Your task to perform on an android device: Search for bose soundlink mini on target, select the first entry, and add it to the cart. Image 0: 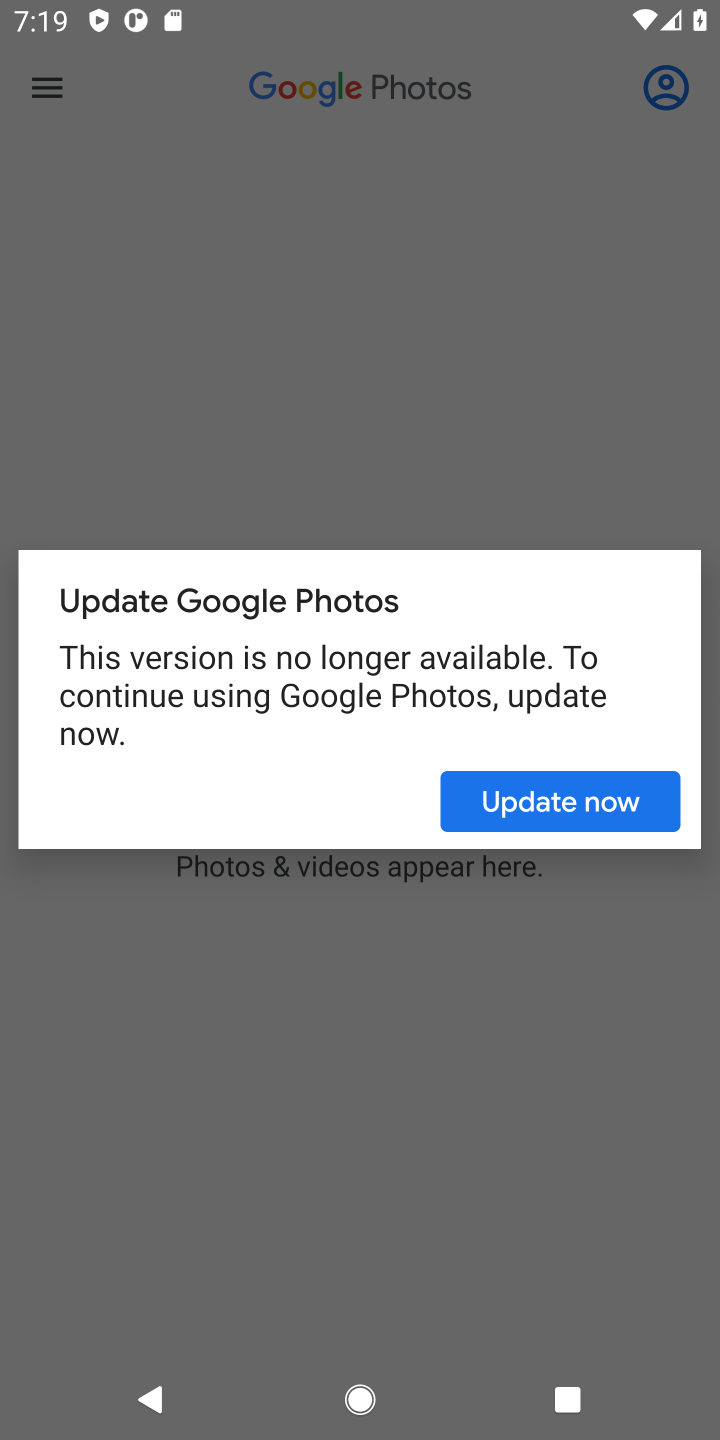
Step 0: press home button
Your task to perform on an android device: Search for bose soundlink mini on target, select the first entry, and add it to the cart. Image 1: 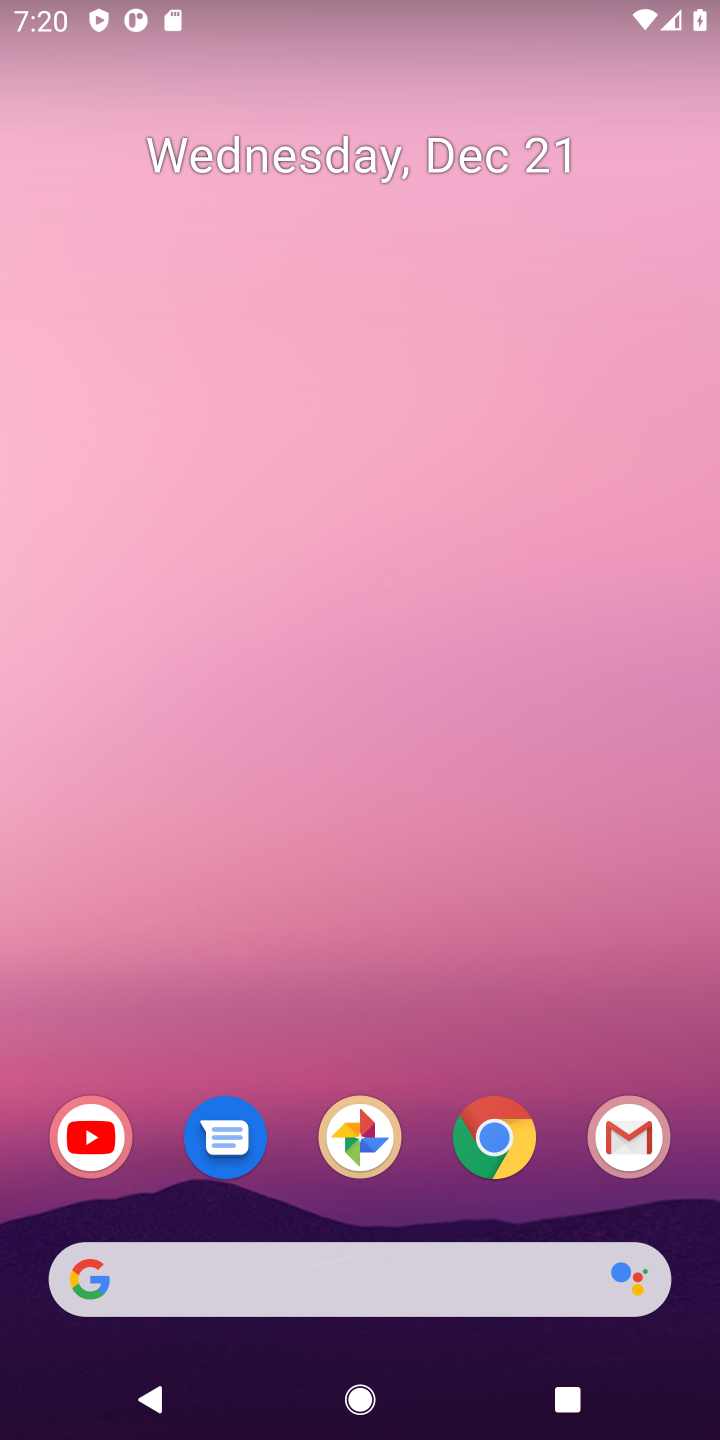
Step 1: click (482, 1151)
Your task to perform on an android device: Search for bose soundlink mini on target, select the first entry, and add it to the cart. Image 2: 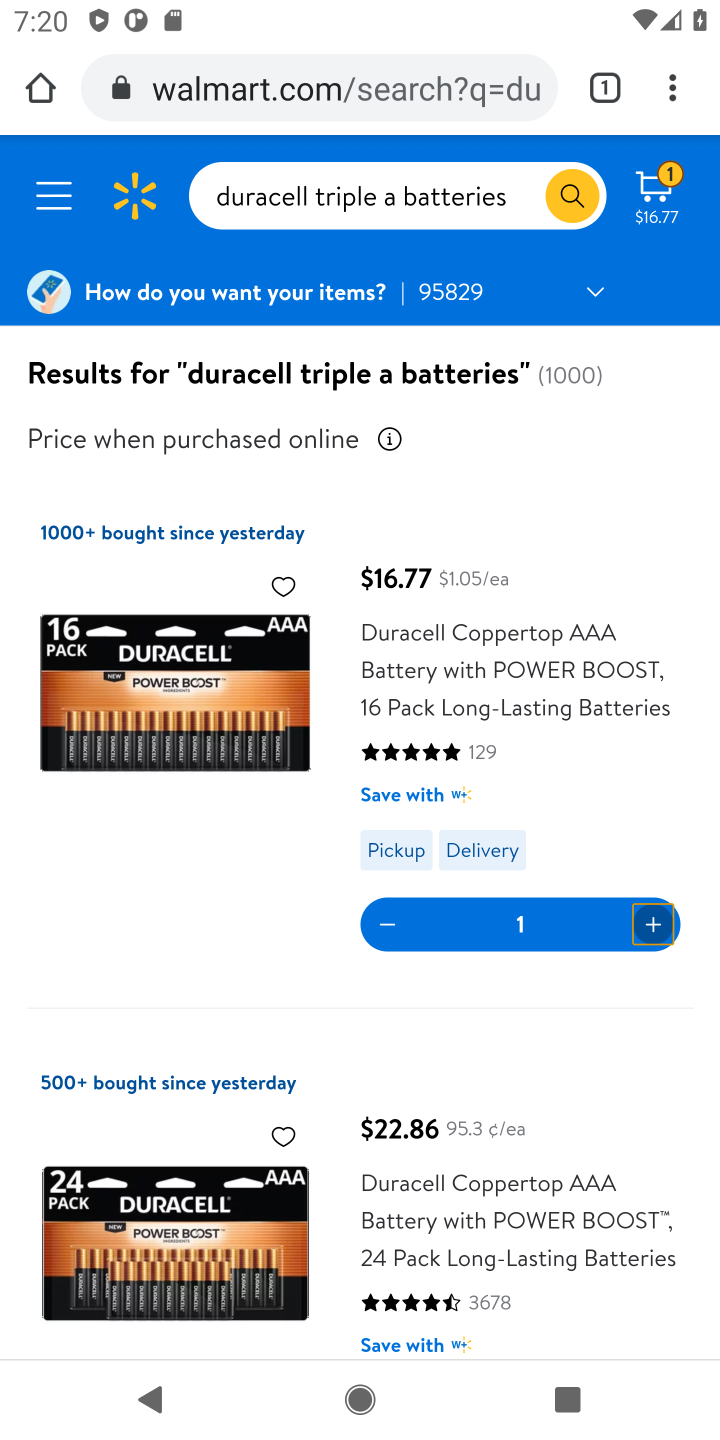
Step 2: click (257, 98)
Your task to perform on an android device: Search for bose soundlink mini on target, select the first entry, and add it to the cart. Image 3: 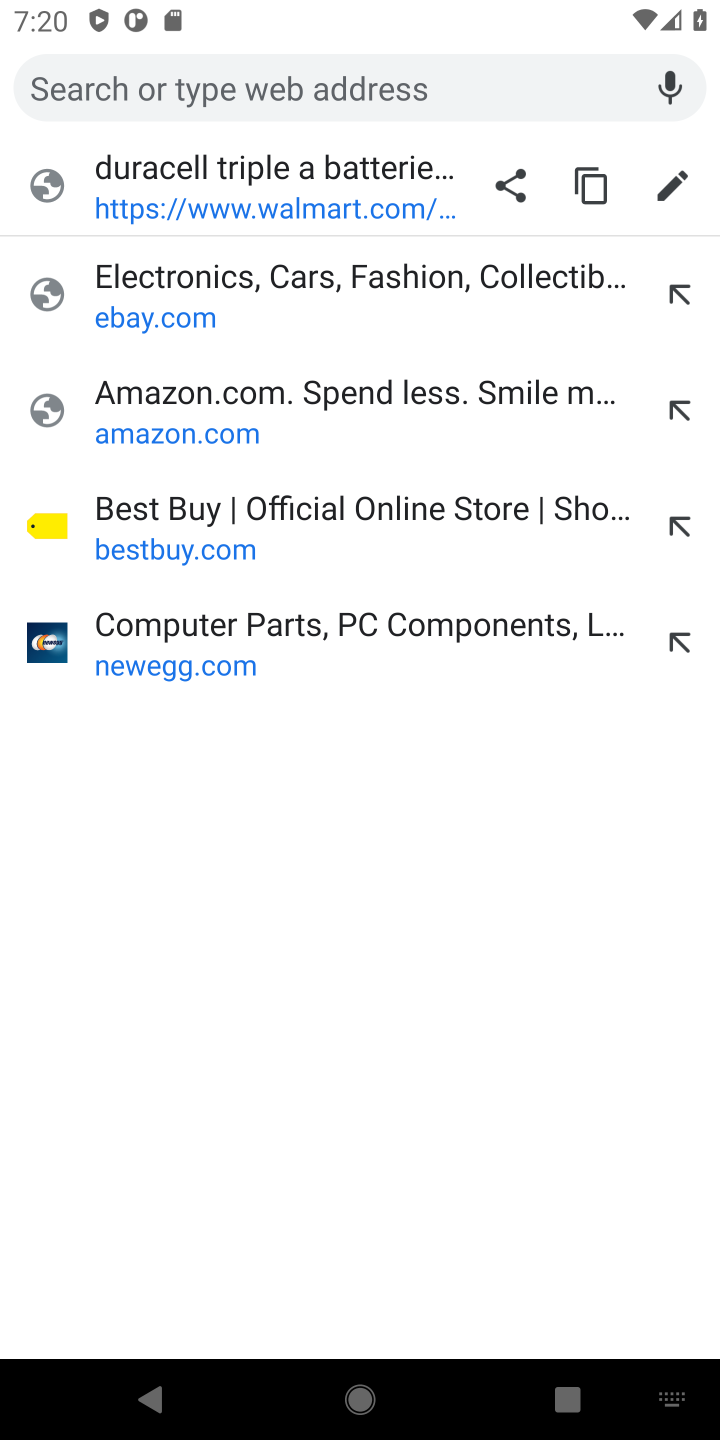
Step 3: type "target.com"
Your task to perform on an android device: Search for bose soundlink mini on target, select the first entry, and add it to the cart. Image 4: 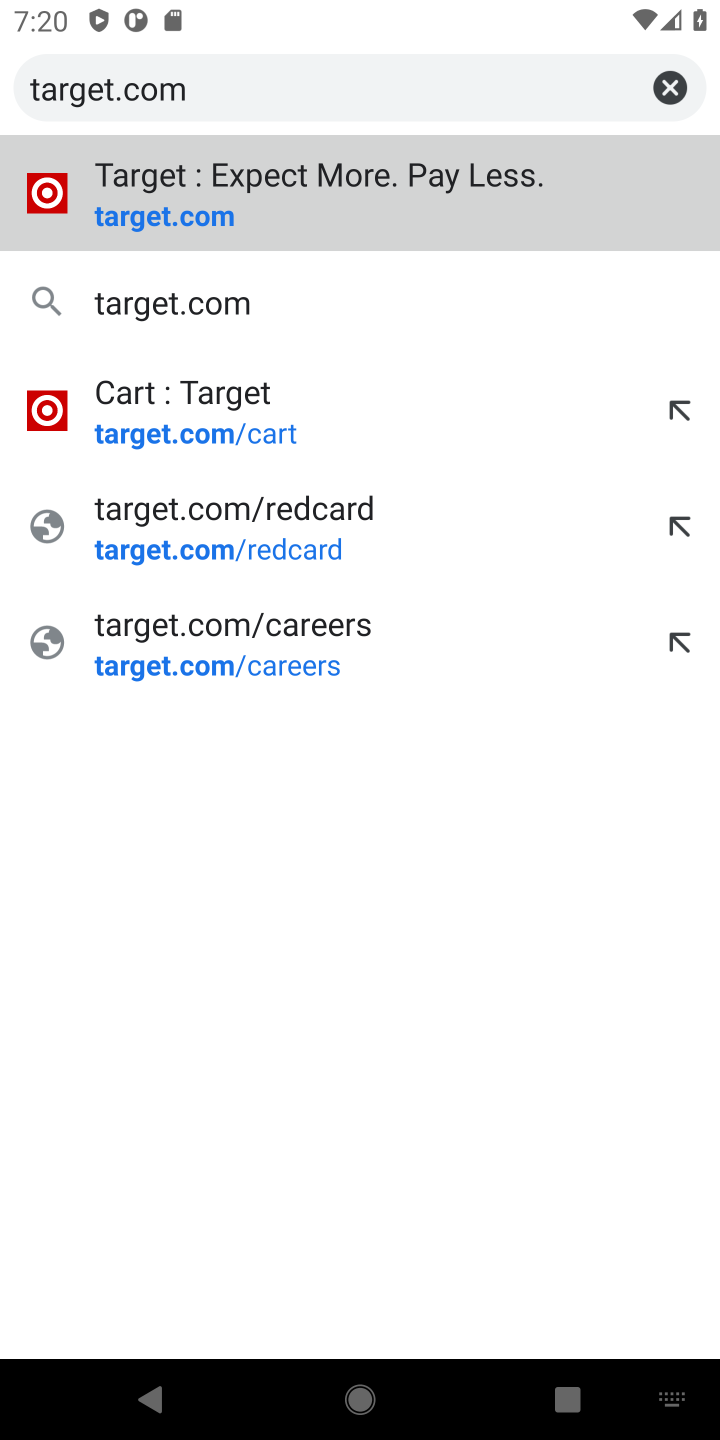
Step 4: click (138, 193)
Your task to perform on an android device: Search for bose soundlink mini on target, select the first entry, and add it to the cart. Image 5: 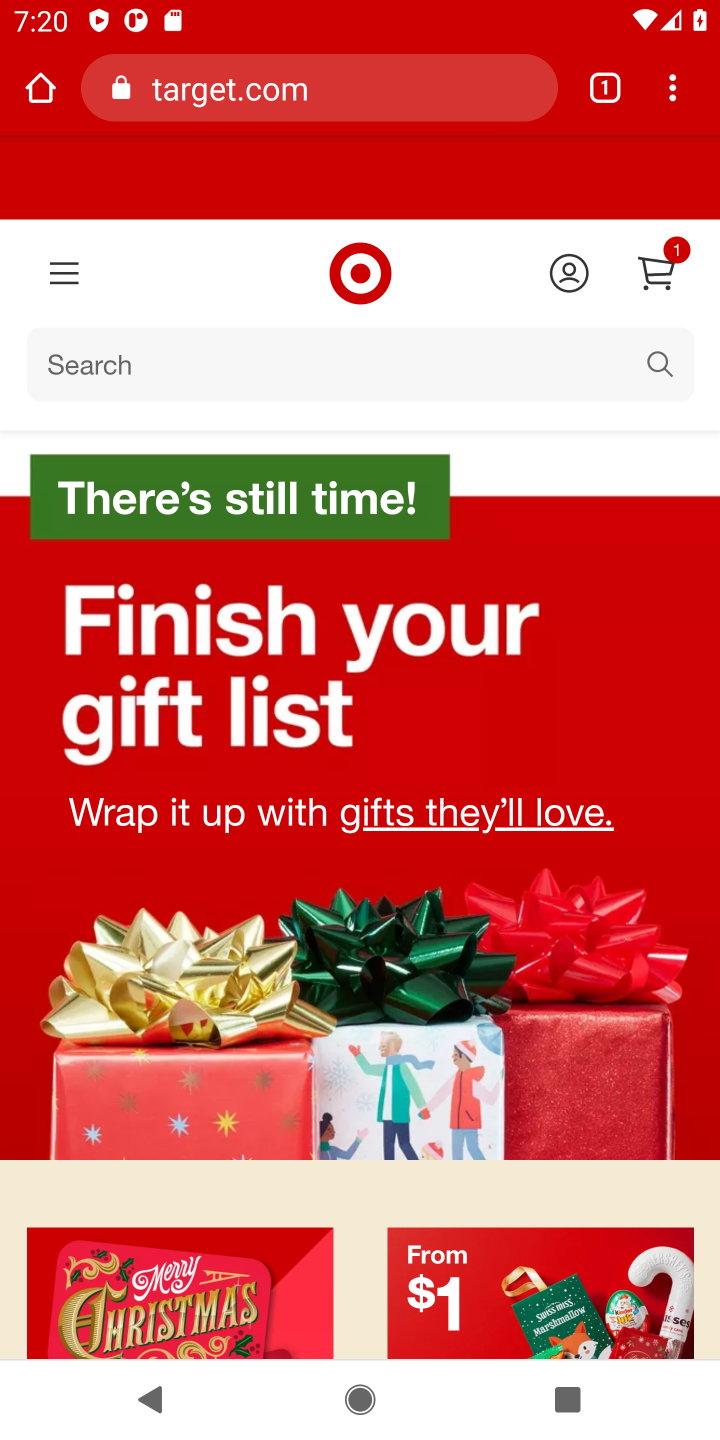
Step 5: click (93, 361)
Your task to perform on an android device: Search for bose soundlink mini on target, select the first entry, and add it to the cart. Image 6: 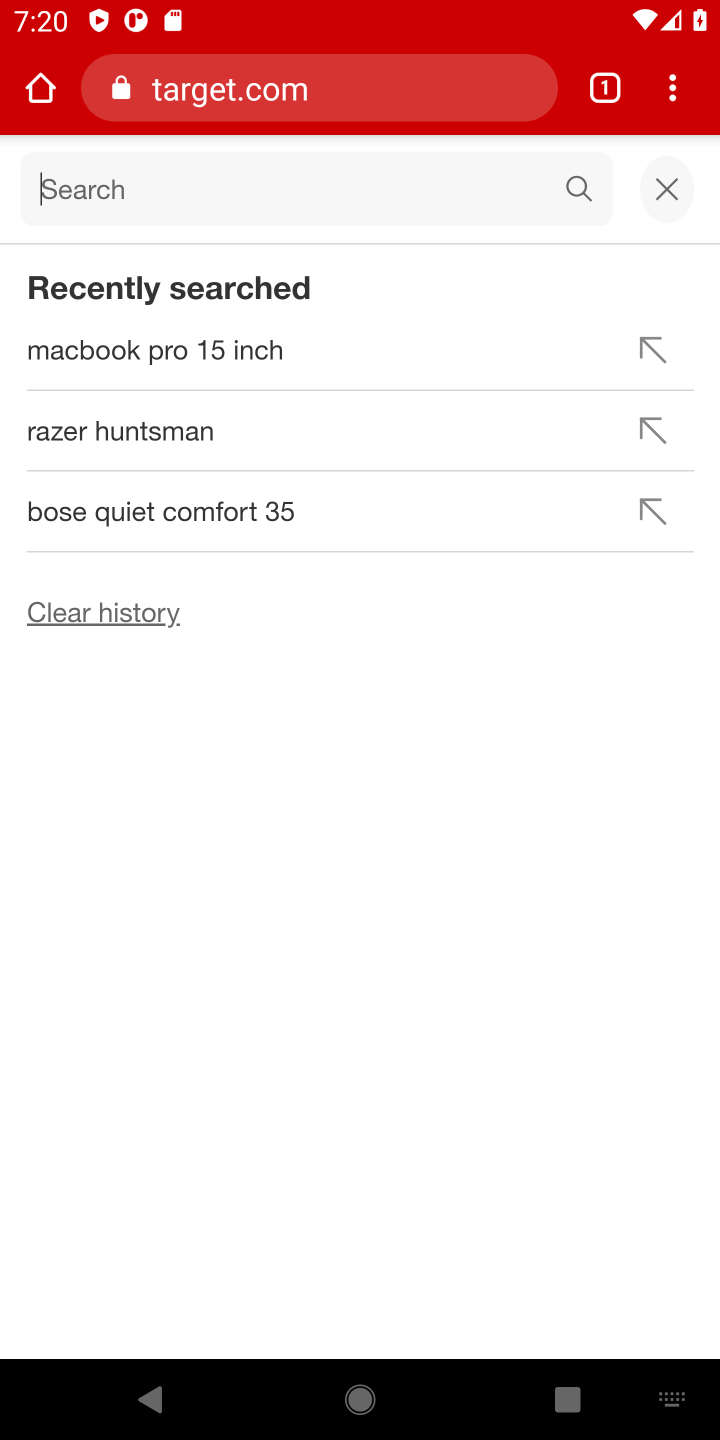
Step 6: type "bose soundlink mini"
Your task to perform on an android device: Search for bose soundlink mini on target, select the first entry, and add it to the cart. Image 7: 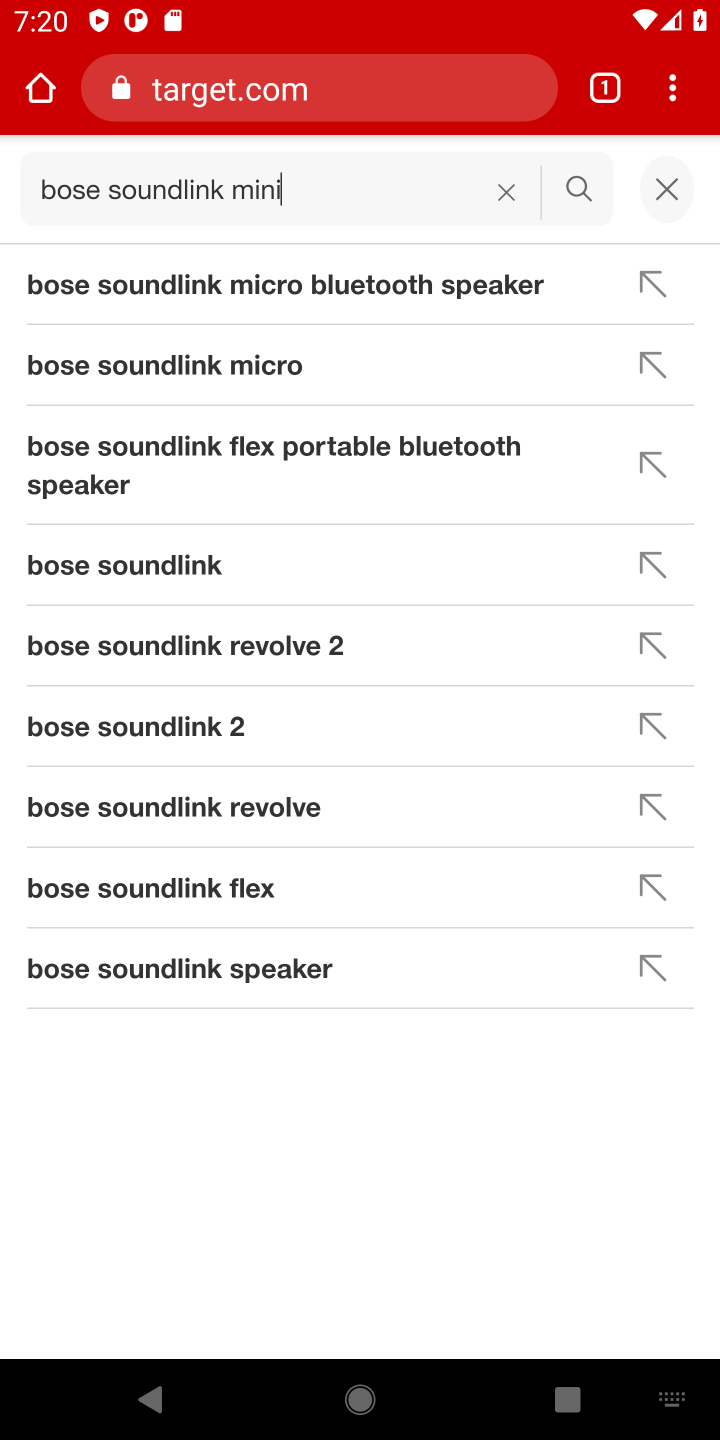
Step 7: click (581, 201)
Your task to perform on an android device: Search for bose soundlink mini on target, select the first entry, and add it to the cart. Image 8: 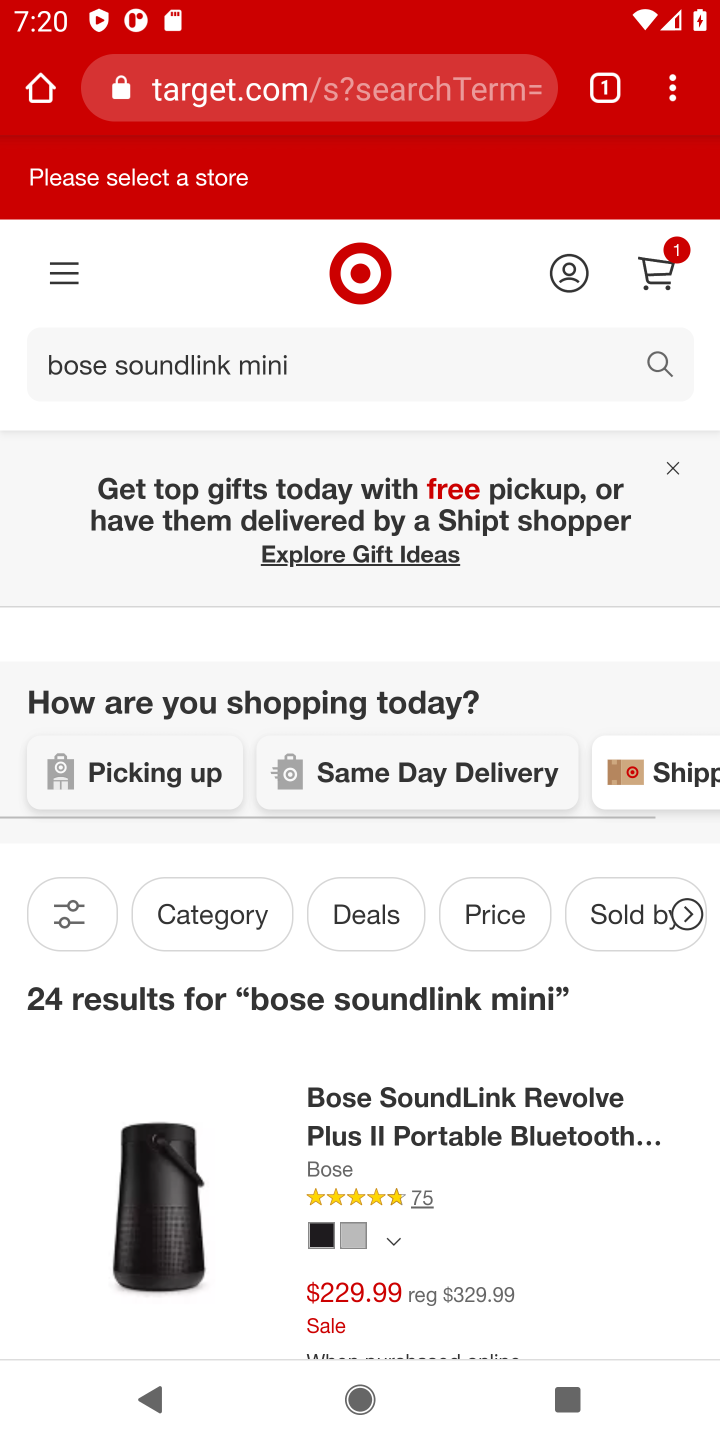
Step 8: task complete